Your task to perform on an android device: install app "Microsoft Authenticator" Image 0: 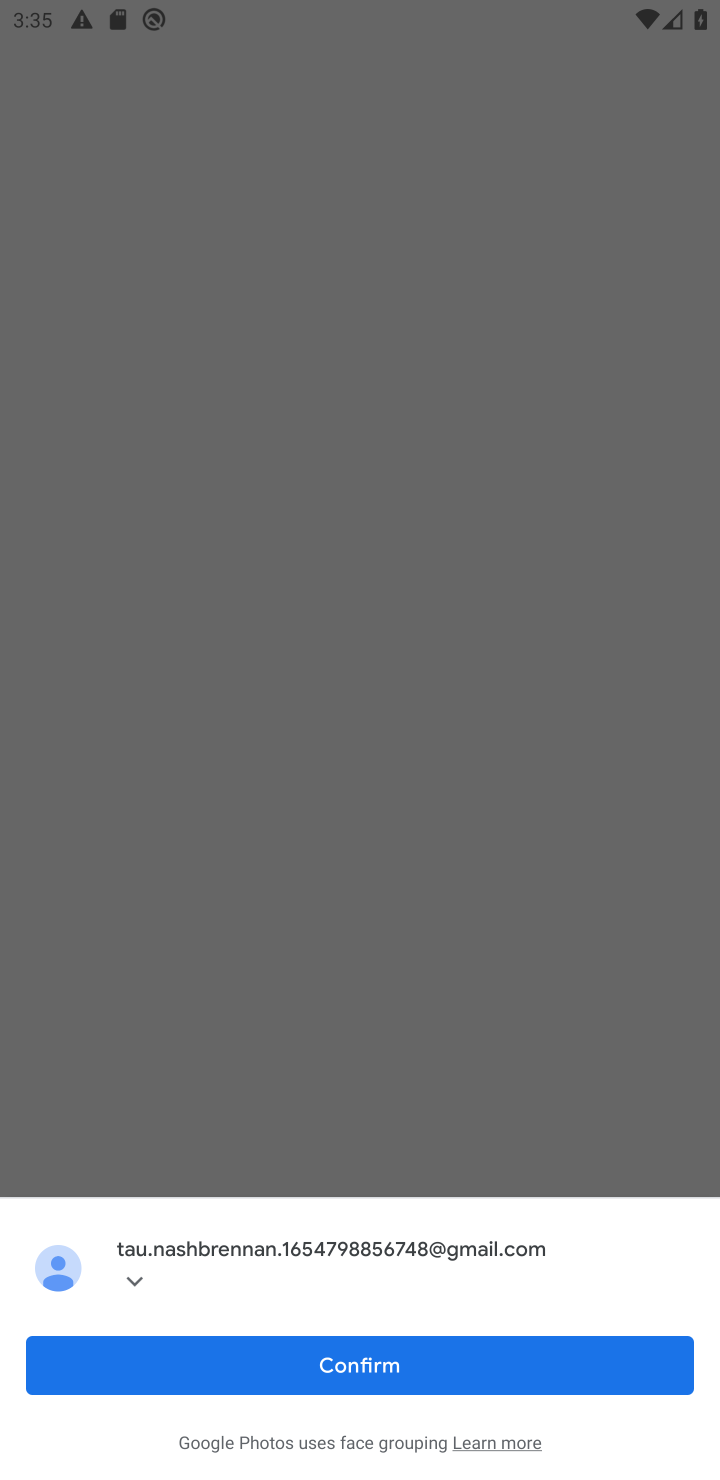
Step 0: press home button
Your task to perform on an android device: install app "Microsoft Authenticator" Image 1: 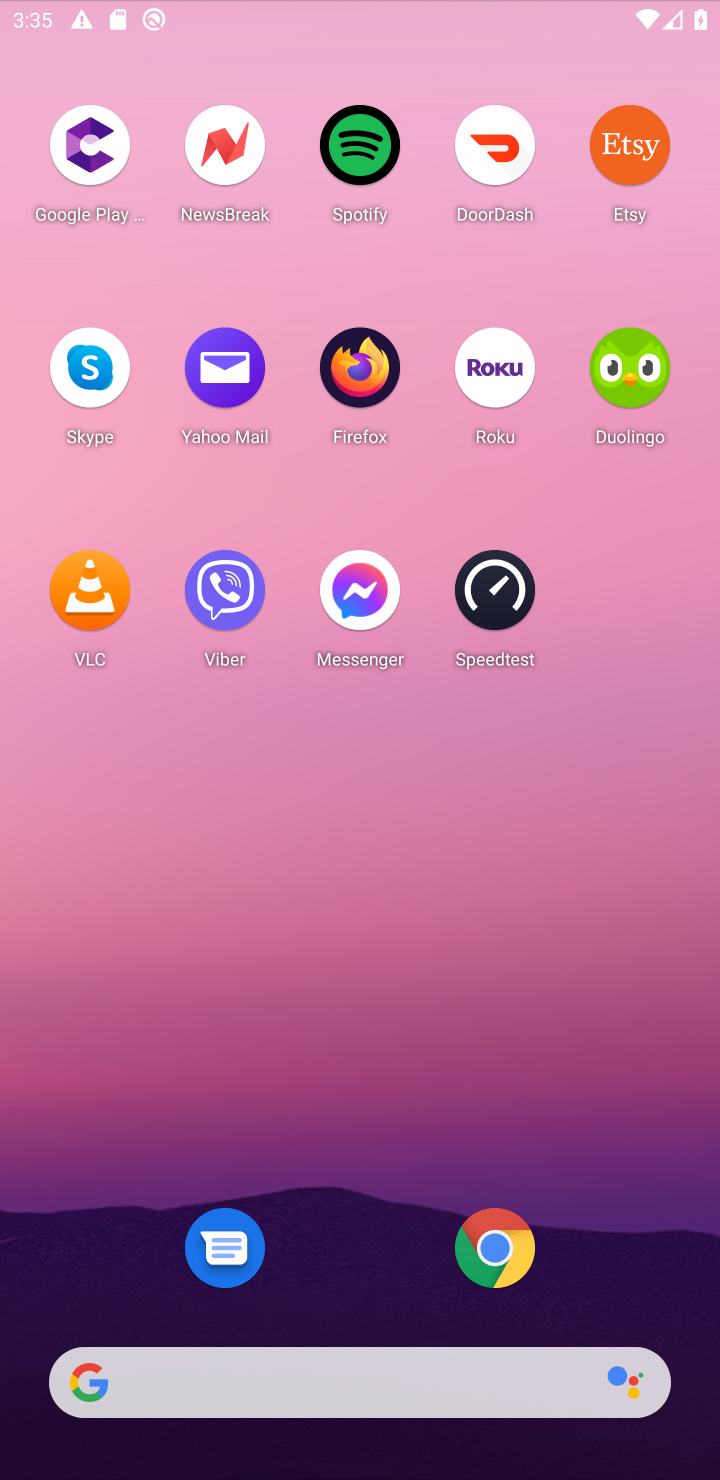
Step 1: press home button
Your task to perform on an android device: install app "Microsoft Authenticator" Image 2: 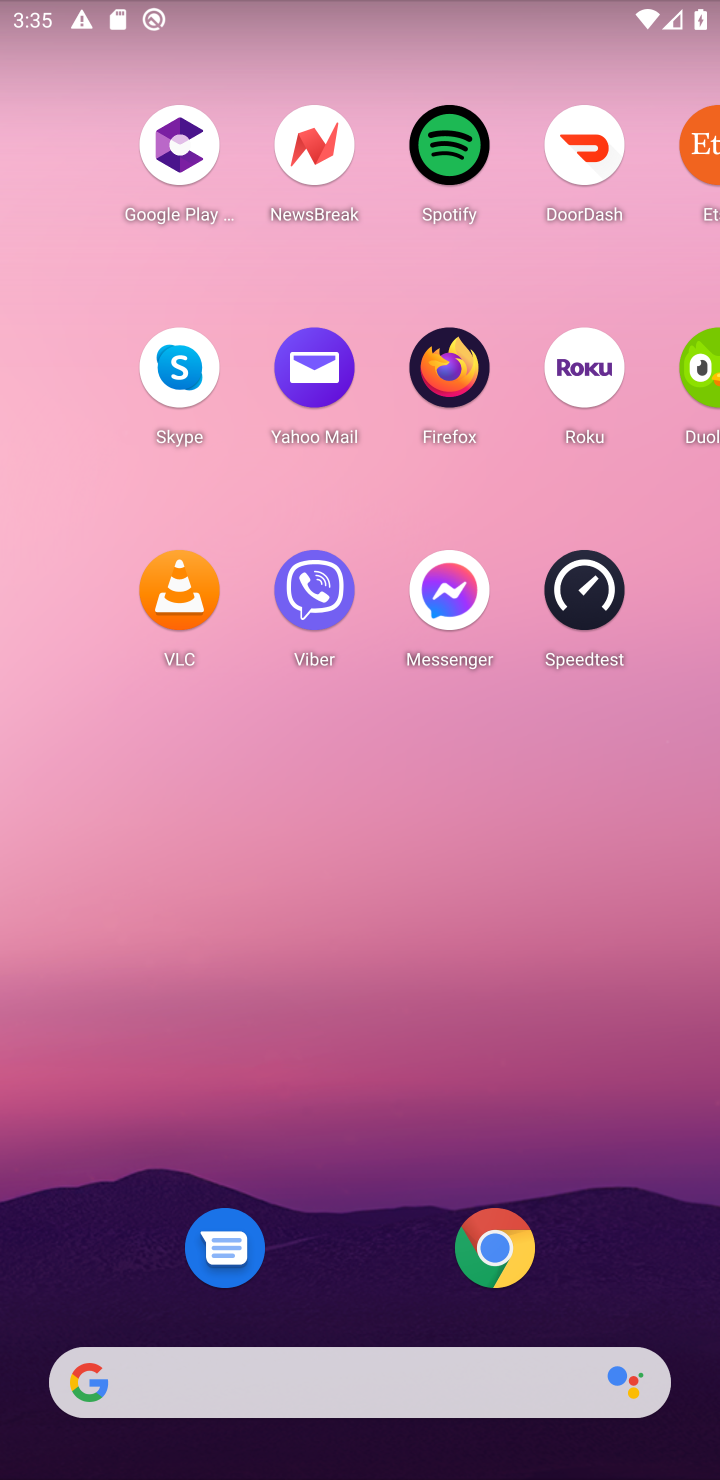
Step 2: drag from (366, 636) to (360, 298)
Your task to perform on an android device: install app "Microsoft Authenticator" Image 3: 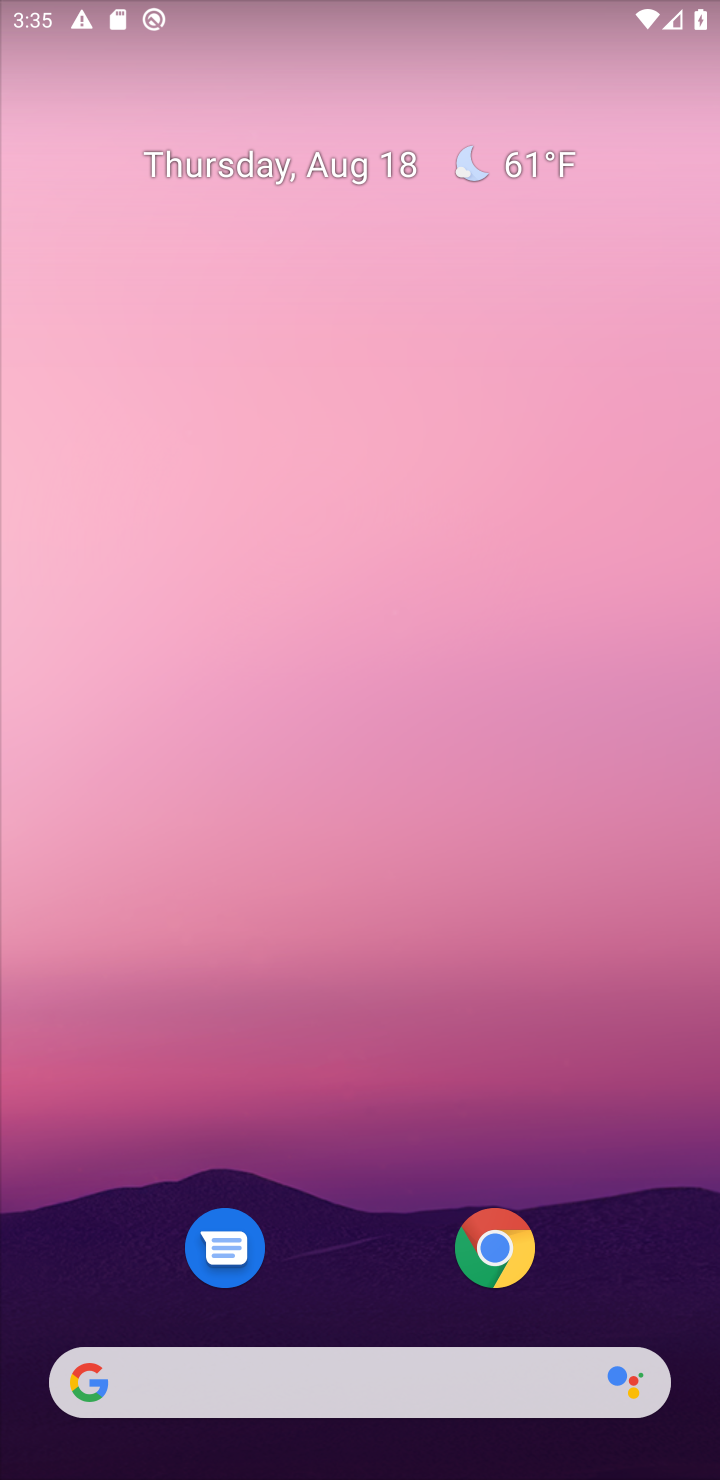
Step 3: drag from (247, 934) to (372, 1107)
Your task to perform on an android device: install app "Microsoft Authenticator" Image 4: 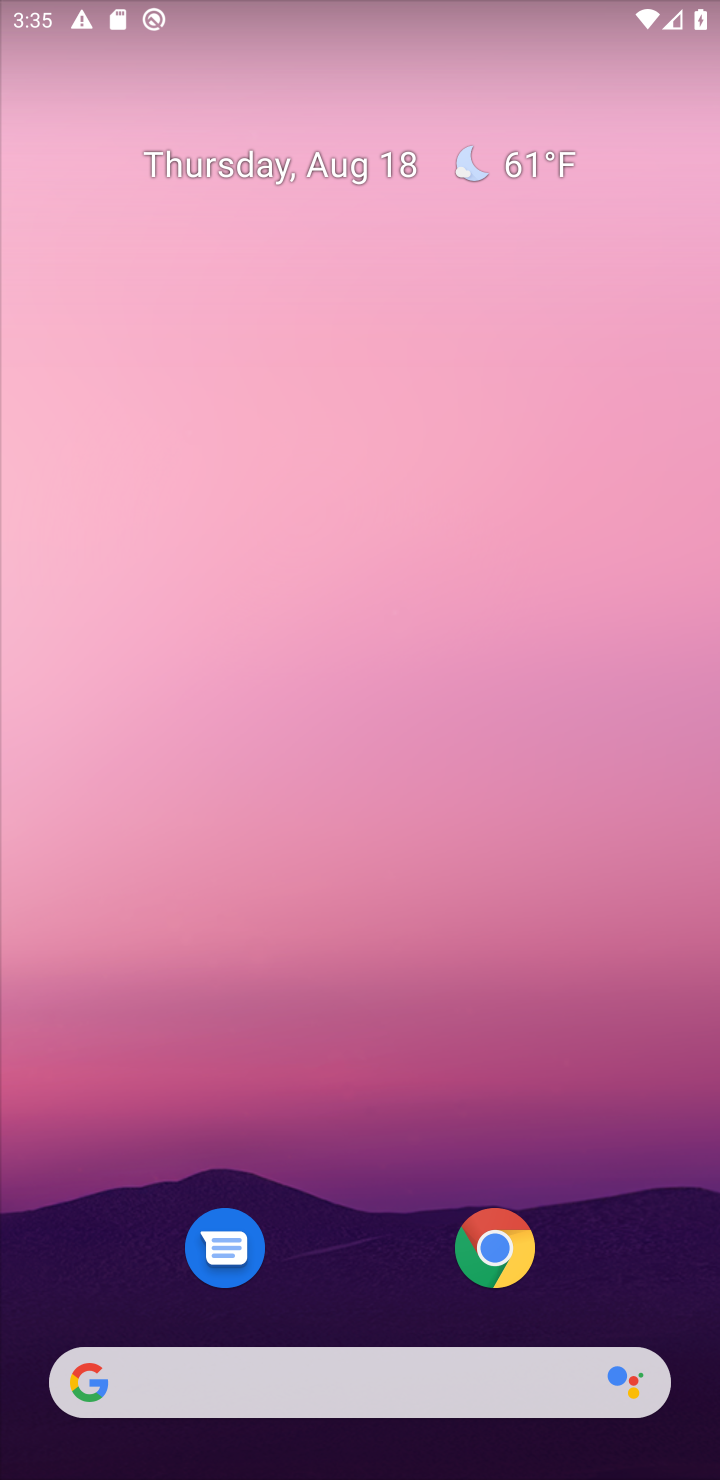
Step 4: drag from (370, 1210) to (274, 275)
Your task to perform on an android device: install app "Microsoft Authenticator" Image 5: 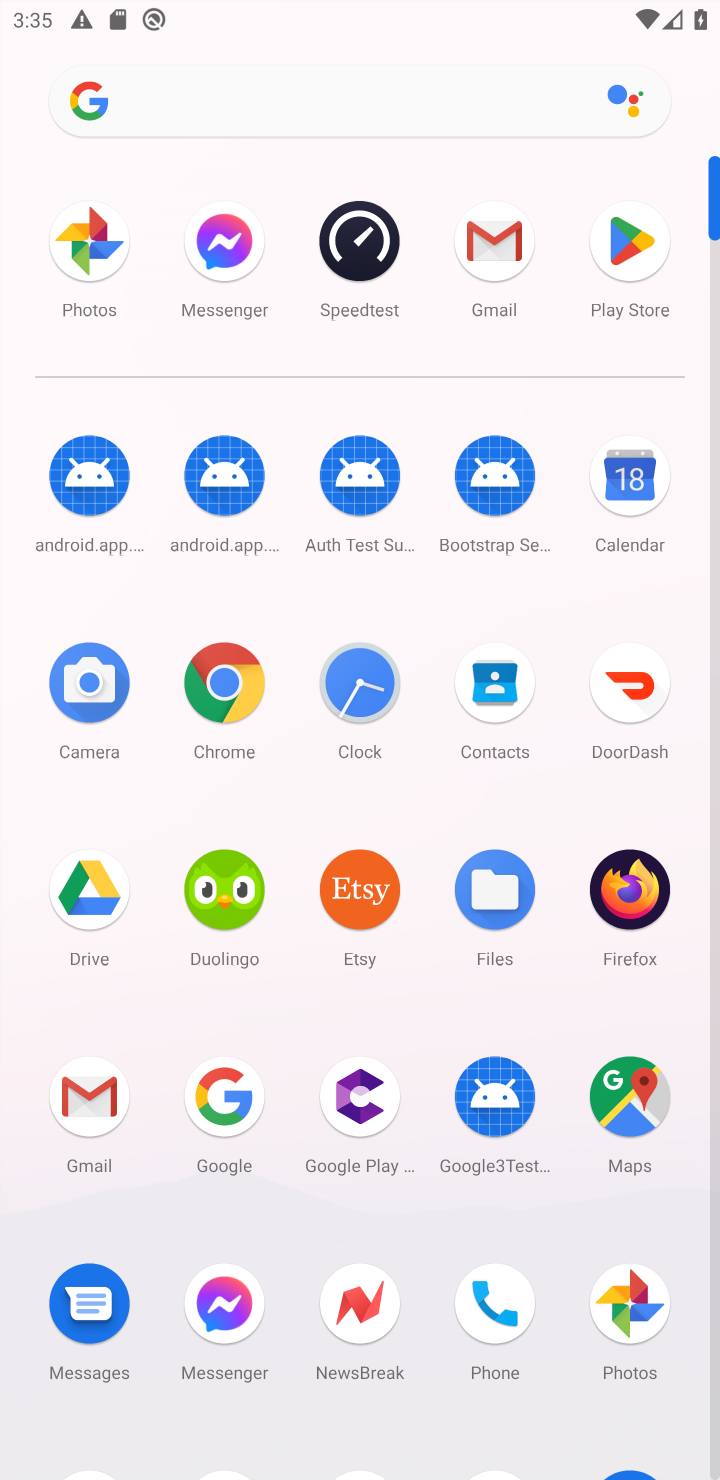
Step 5: click (630, 229)
Your task to perform on an android device: install app "Microsoft Authenticator" Image 6: 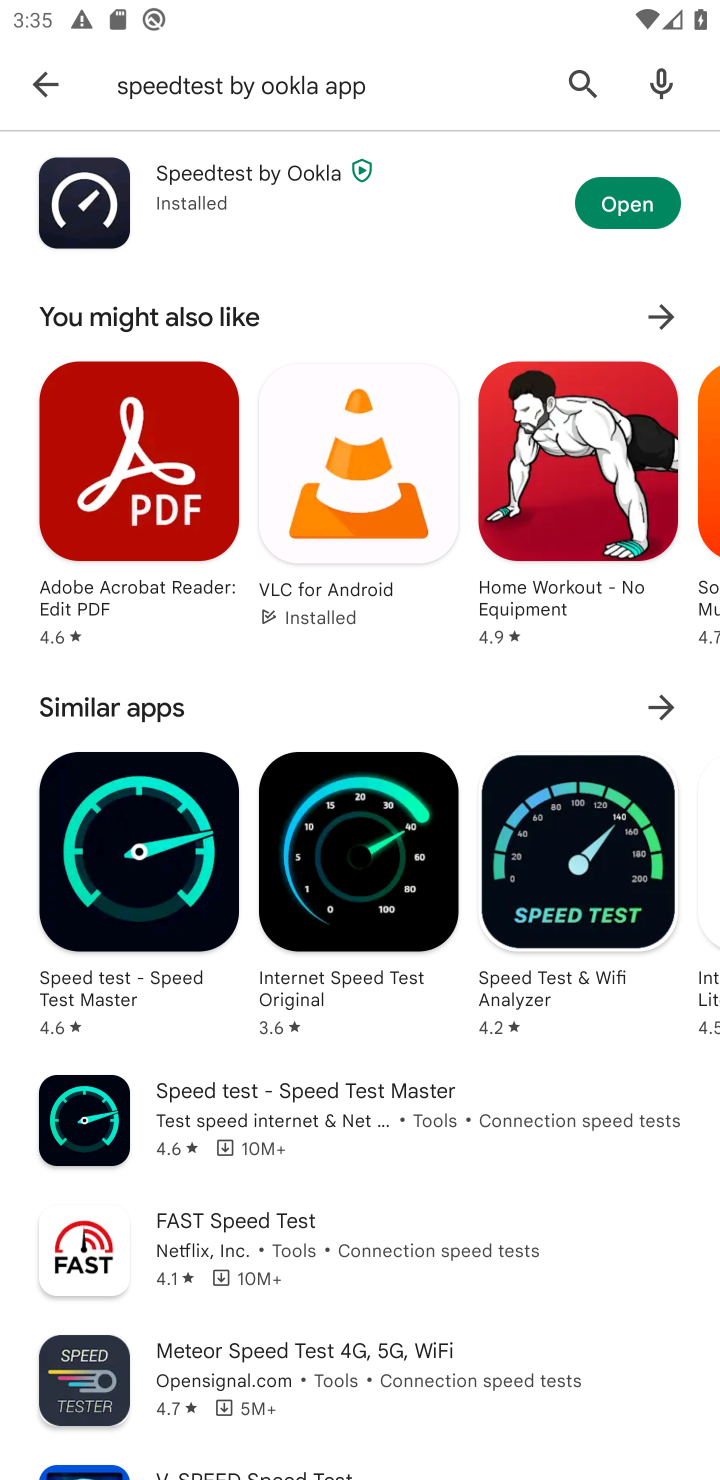
Step 6: click (576, 86)
Your task to perform on an android device: install app "Microsoft Authenticator" Image 7: 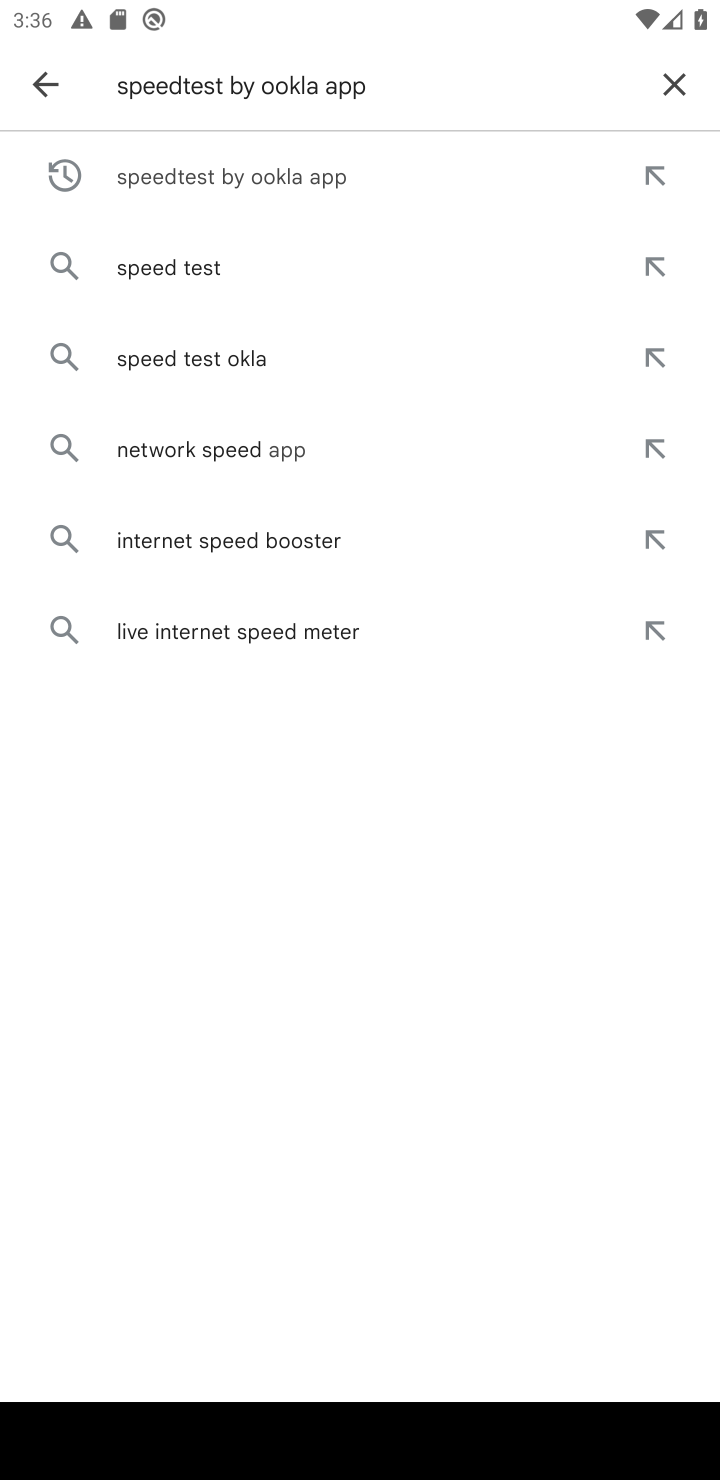
Step 7: click (676, 75)
Your task to perform on an android device: install app "Microsoft Authenticator" Image 8: 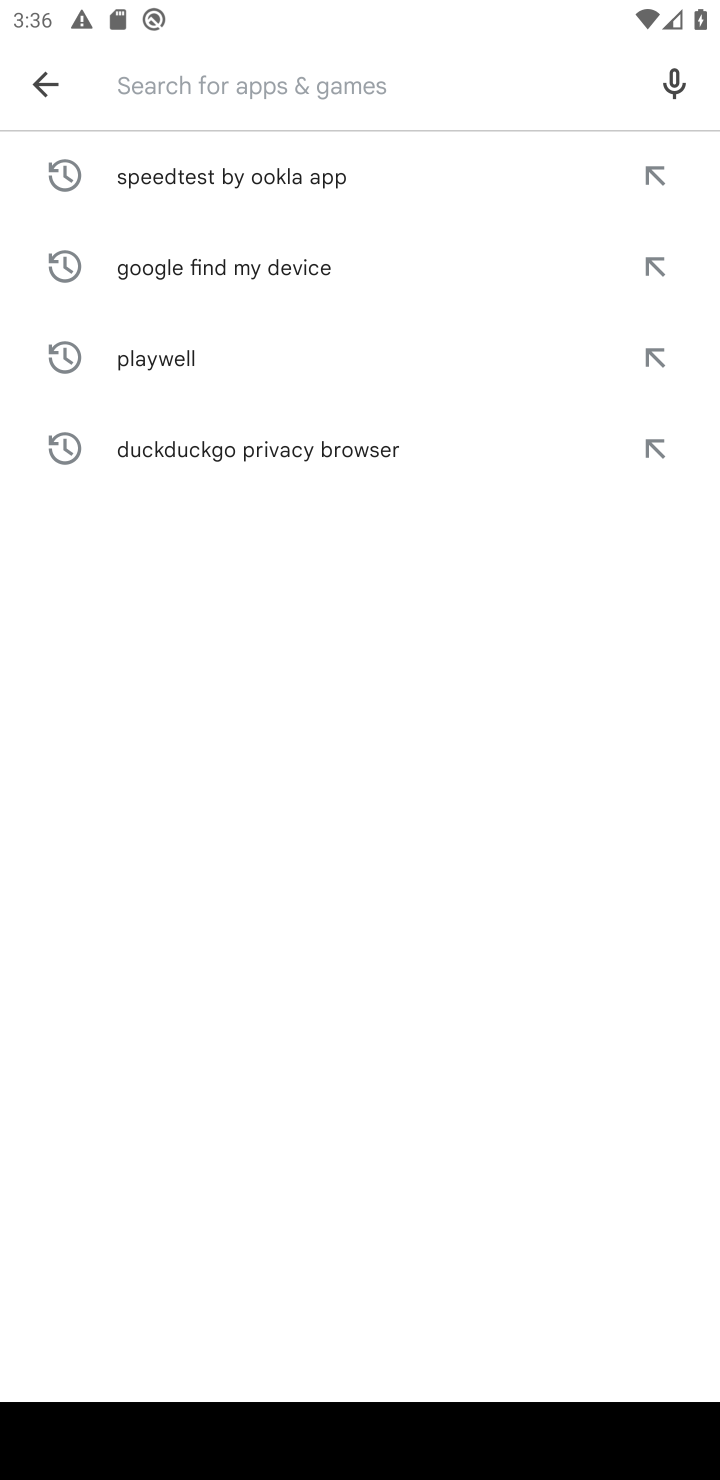
Step 8: type "Speedtest by Ookla"
Your task to perform on an android device: install app "Microsoft Authenticator" Image 9: 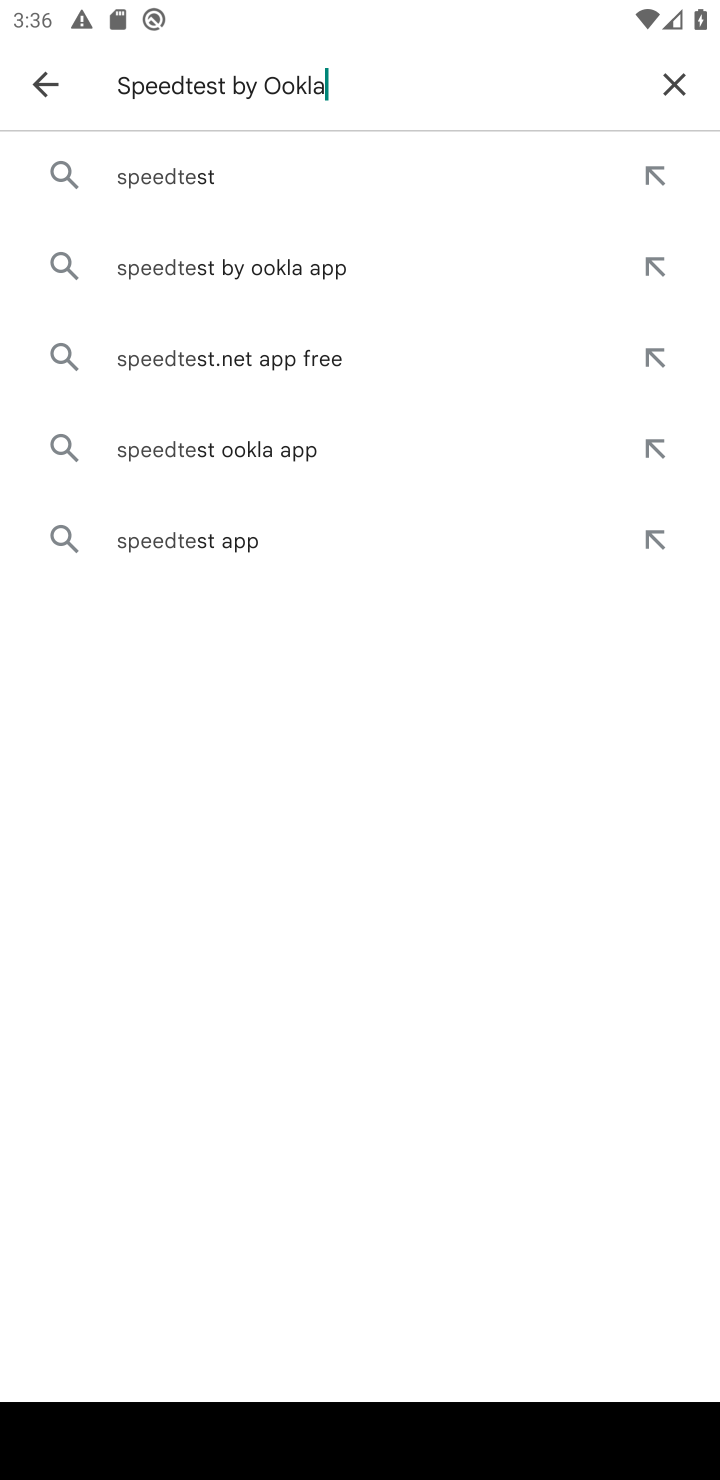
Step 9: type ""
Your task to perform on an android device: install app "Microsoft Authenticator" Image 10: 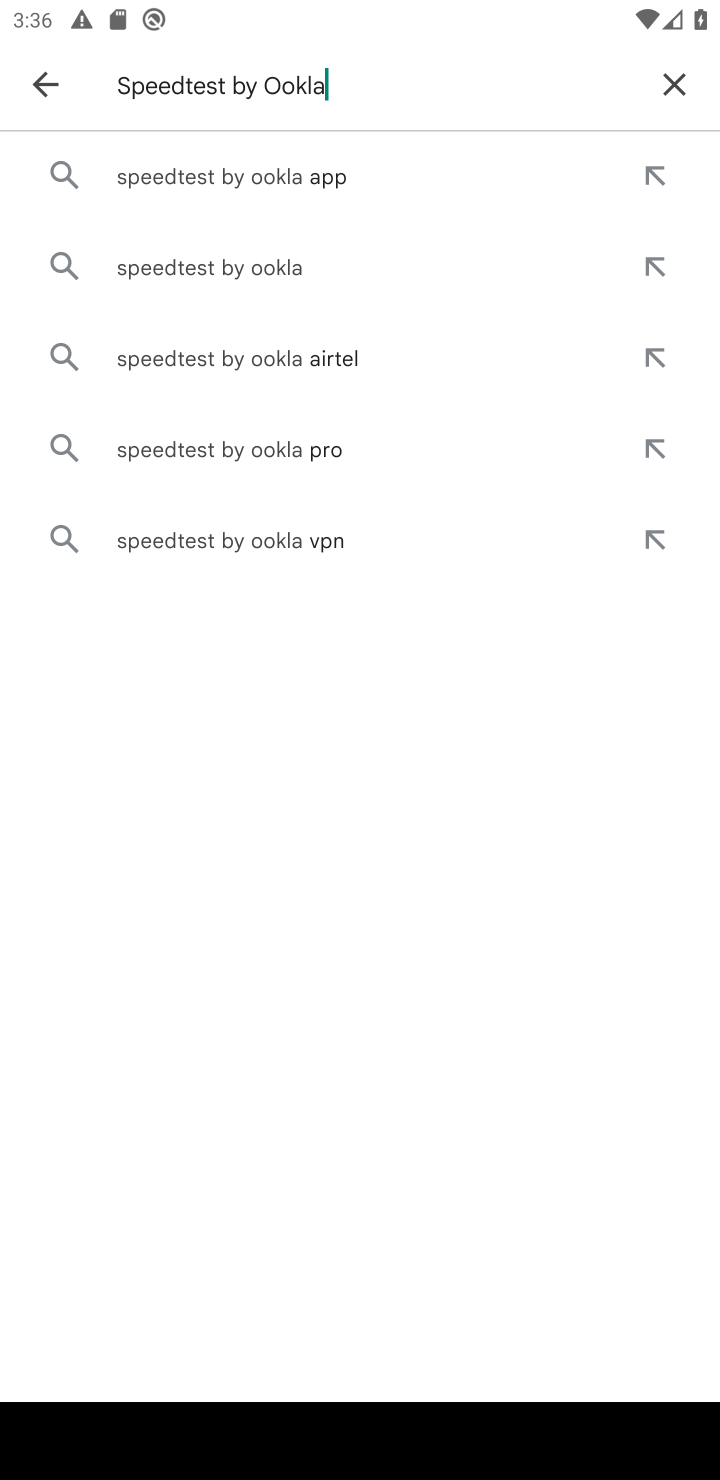
Step 10: click (271, 183)
Your task to perform on an android device: install app "Microsoft Authenticator" Image 11: 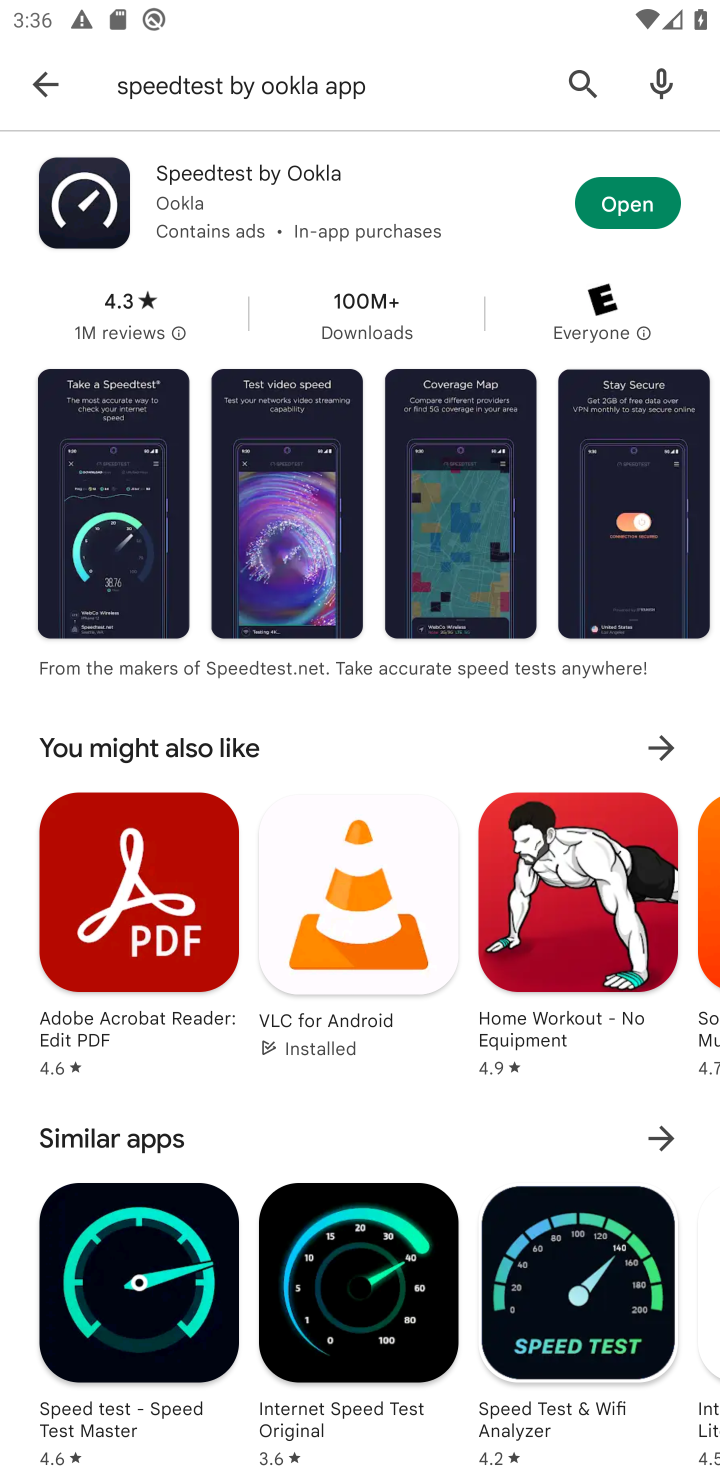
Step 11: task complete